Your task to perform on an android device: What is the news today? Image 0: 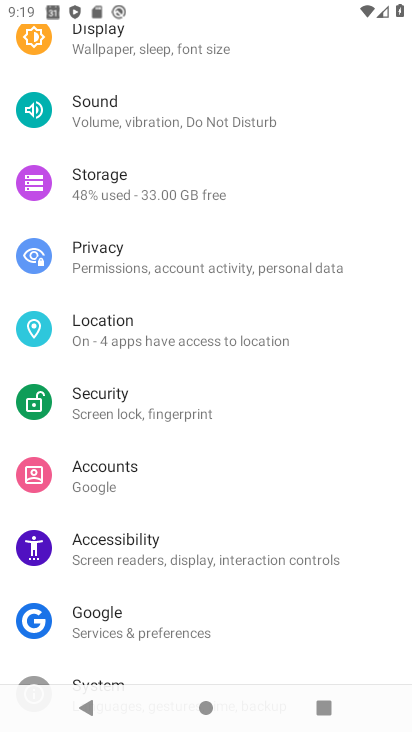
Step 0: press home button
Your task to perform on an android device: What is the news today? Image 1: 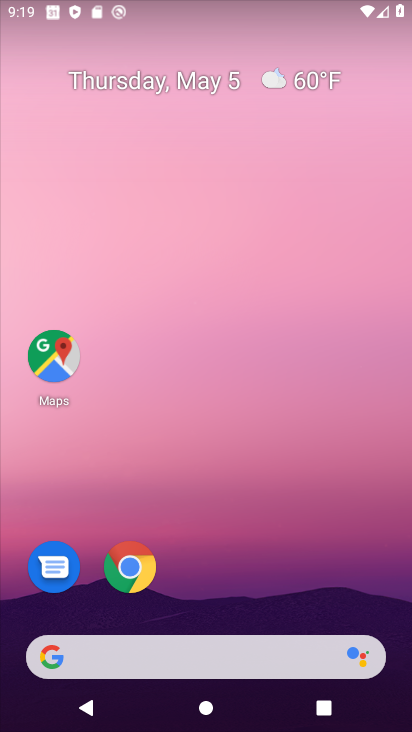
Step 1: task complete